Your task to perform on an android device: Add apple airpods to the cart on amazon.com, then select checkout. Image 0: 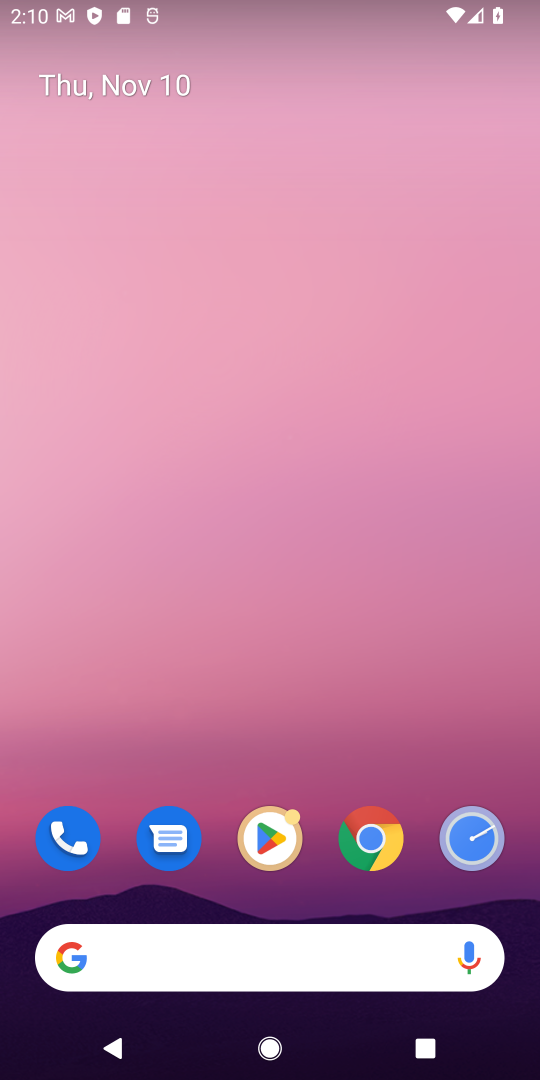
Step 0: click (353, 840)
Your task to perform on an android device: Add apple airpods to the cart on amazon.com, then select checkout. Image 1: 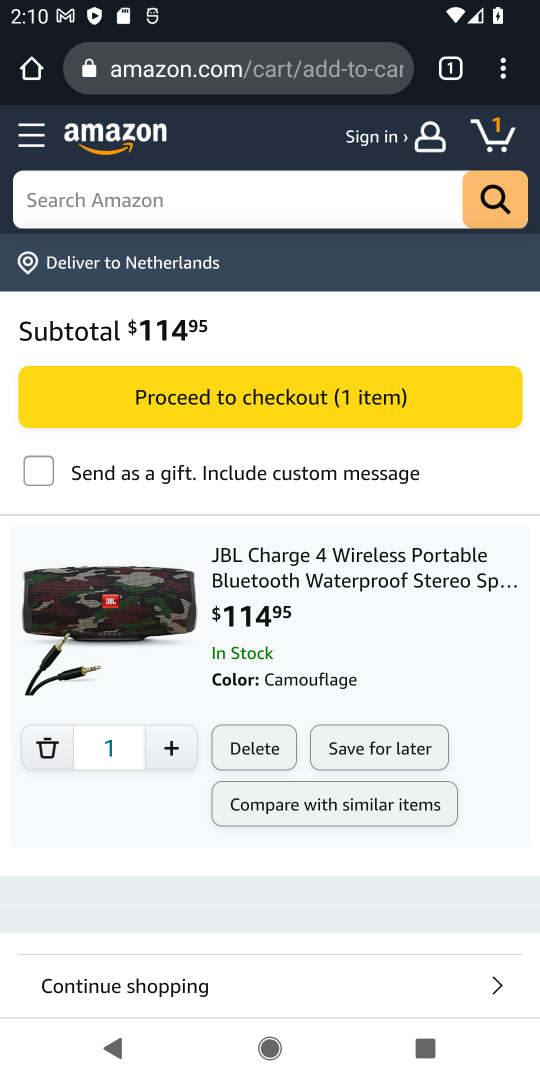
Step 1: click (141, 206)
Your task to perform on an android device: Add apple airpods to the cart on amazon.com, then select checkout. Image 2: 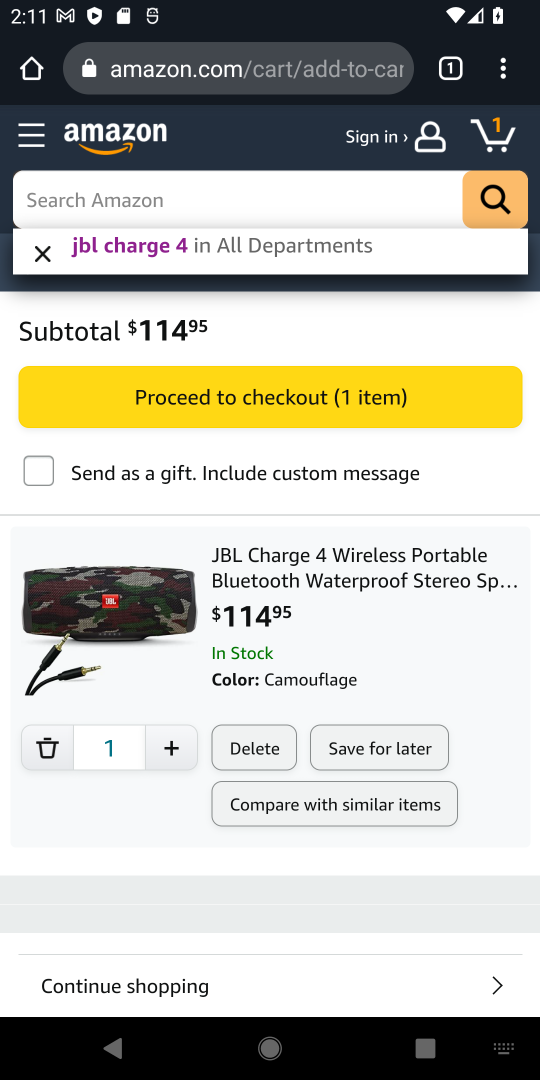
Step 2: type "apple airpods"
Your task to perform on an android device: Add apple airpods to the cart on amazon.com, then select checkout. Image 3: 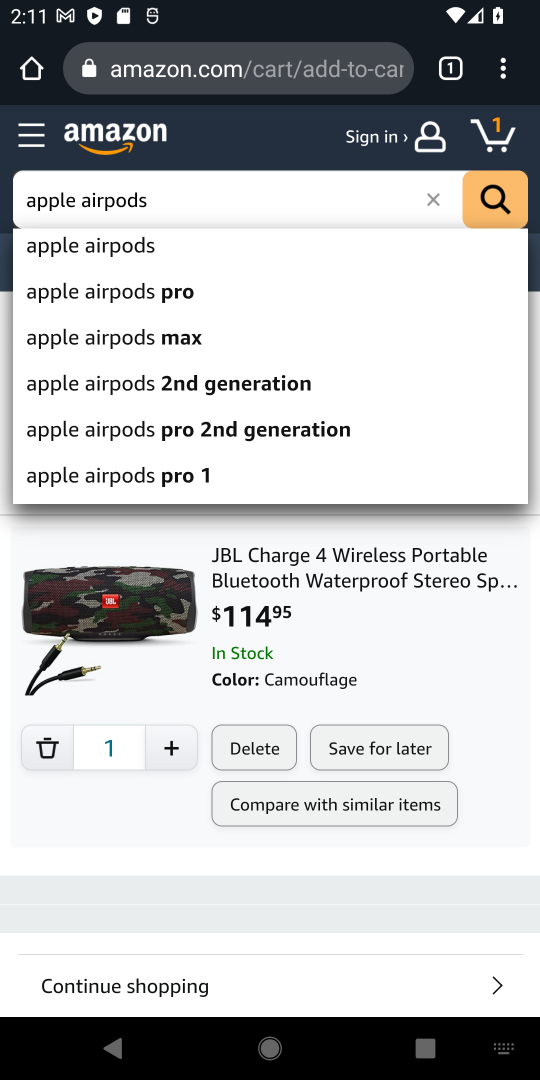
Step 3: click (92, 244)
Your task to perform on an android device: Add apple airpods to the cart on amazon.com, then select checkout. Image 4: 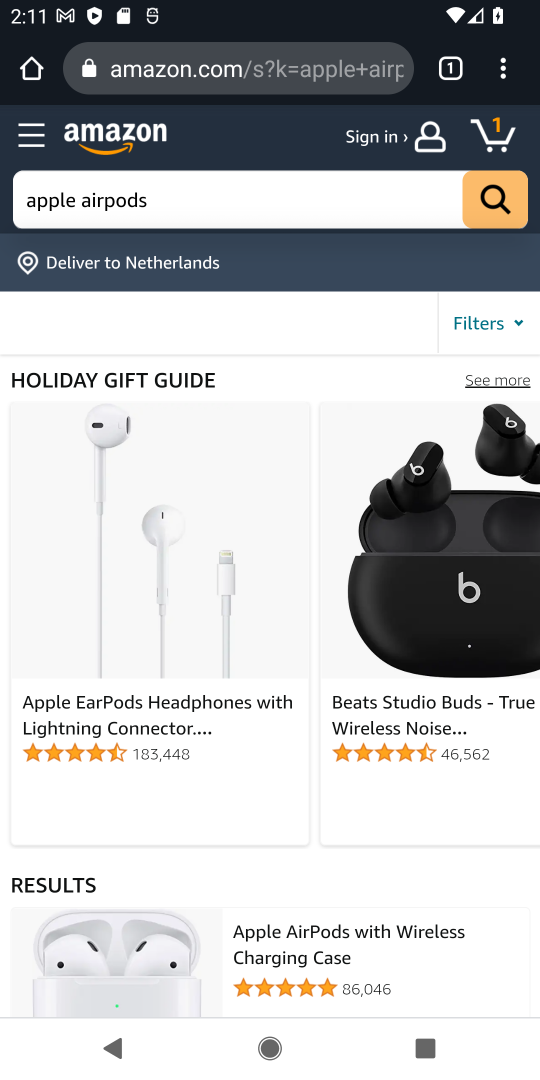
Step 4: click (101, 710)
Your task to perform on an android device: Add apple airpods to the cart on amazon.com, then select checkout. Image 5: 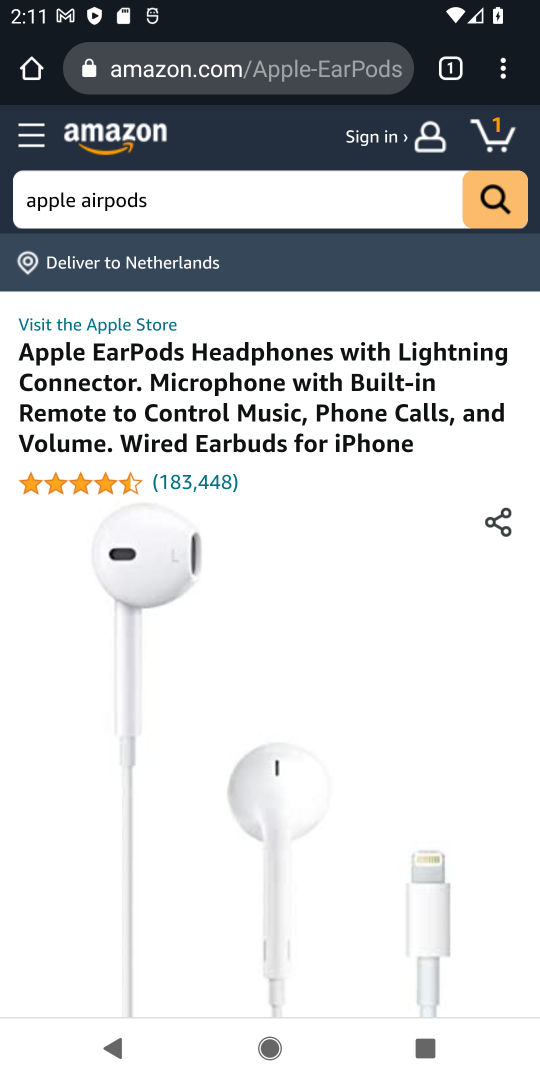
Step 5: drag from (340, 866) to (434, 15)
Your task to perform on an android device: Add apple airpods to the cart on amazon.com, then select checkout. Image 6: 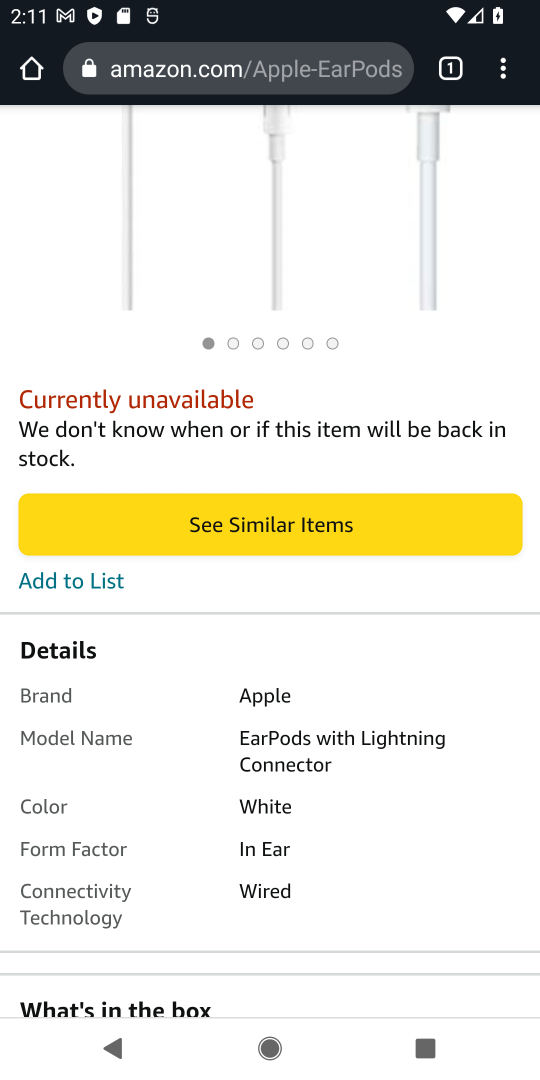
Step 6: click (345, 525)
Your task to perform on an android device: Add apple airpods to the cart on amazon.com, then select checkout. Image 7: 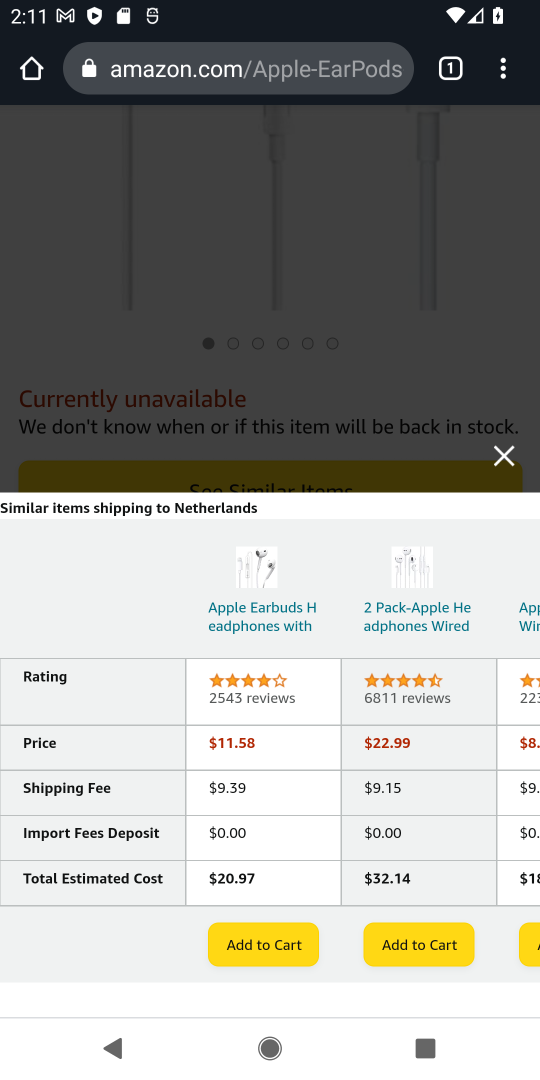
Step 7: click (258, 939)
Your task to perform on an android device: Add apple airpods to the cart on amazon.com, then select checkout. Image 8: 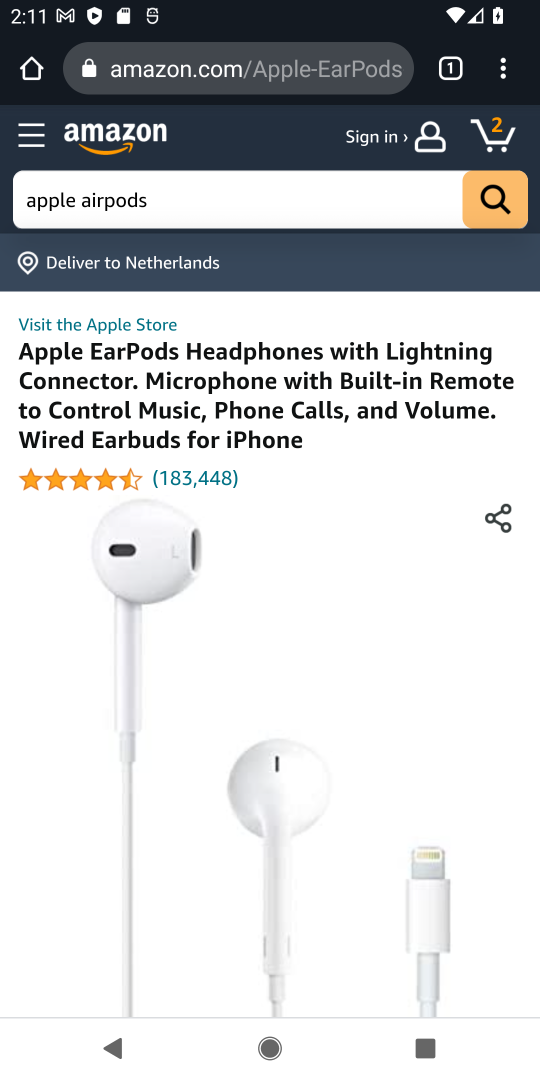
Step 8: click (495, 128)
Your task to perform on an android device: Add apple airpods to the cart on amazon.com, then select checkout. Image 9: 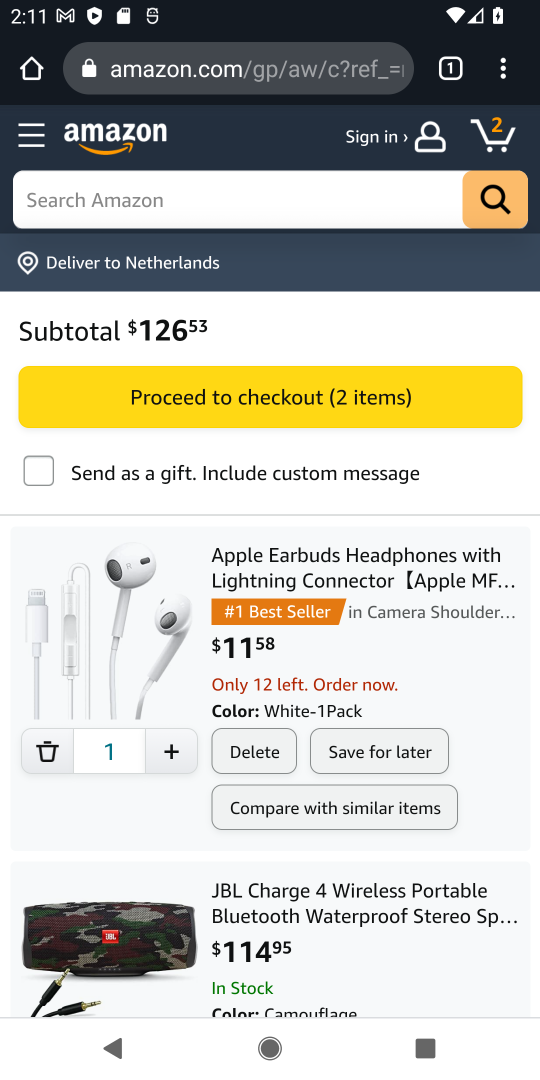
Step 9: click (405, 393)
Your task to perform on an android device: Add apple airpods to the cart on amazon.com, then select checkout. Image 10: 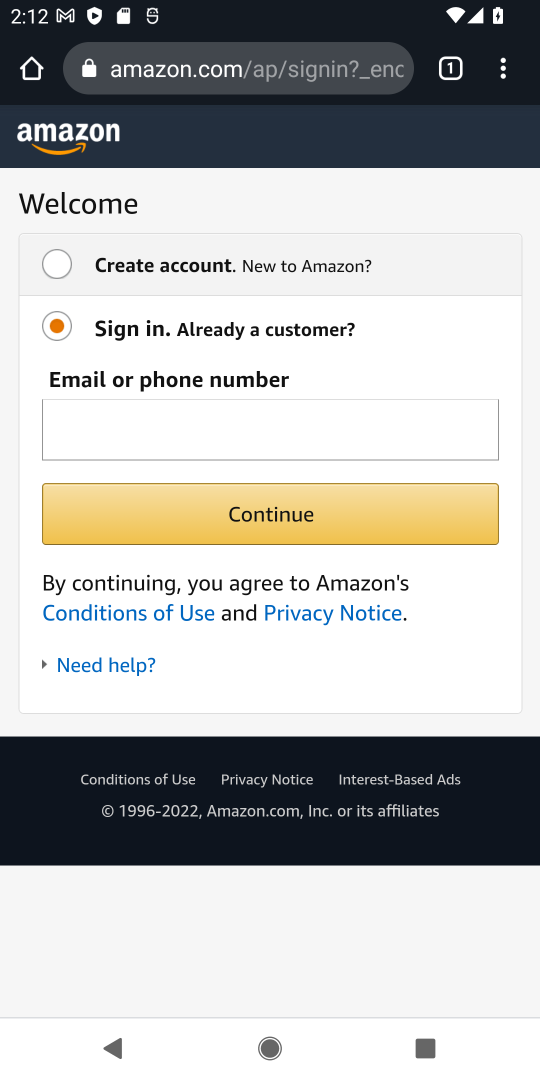
Step 10: task complete